Your task to perform on an android device: change text size in settings app Image 0: 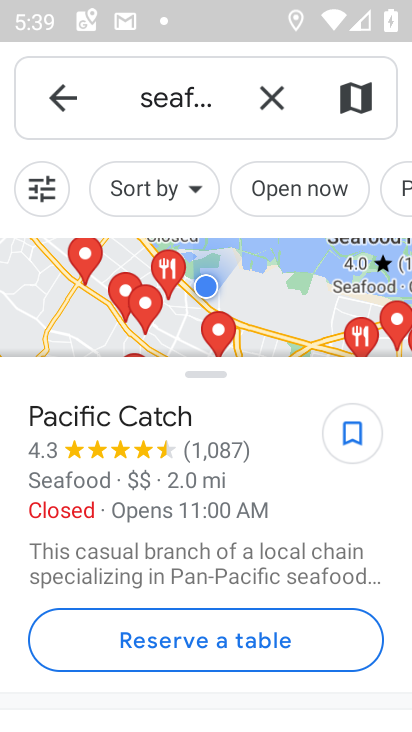
Step 0: click (54, 112)
Your task to perform on an android device: change text size in settings app Image 1: 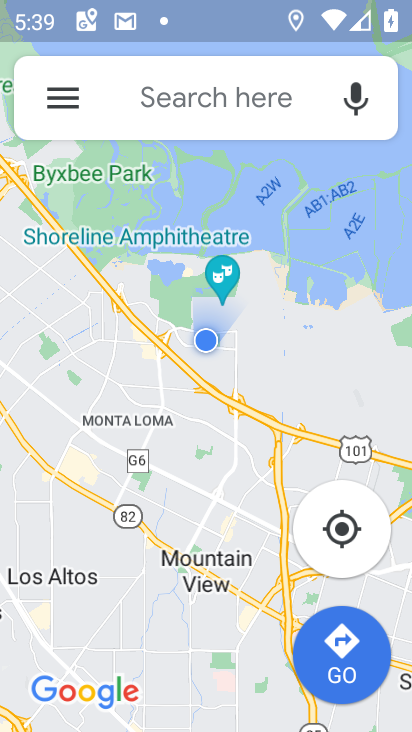
Step 1: click (136, 87)
Your task to perform on an android device: change text size in settings app Image 2: 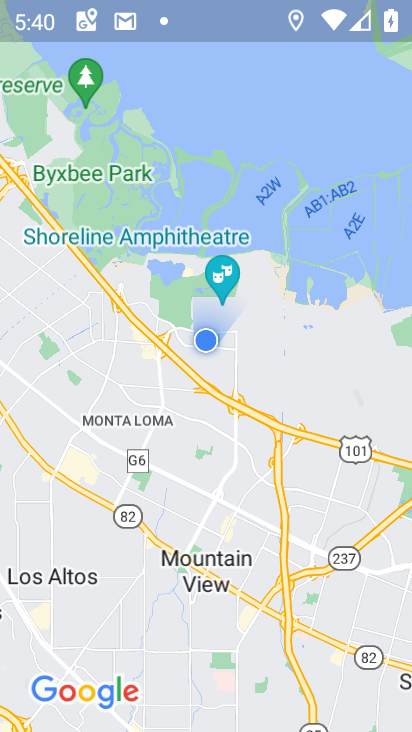
Step 2: press back button
Your task to perform on an android device: change text size in settings app Image 3: 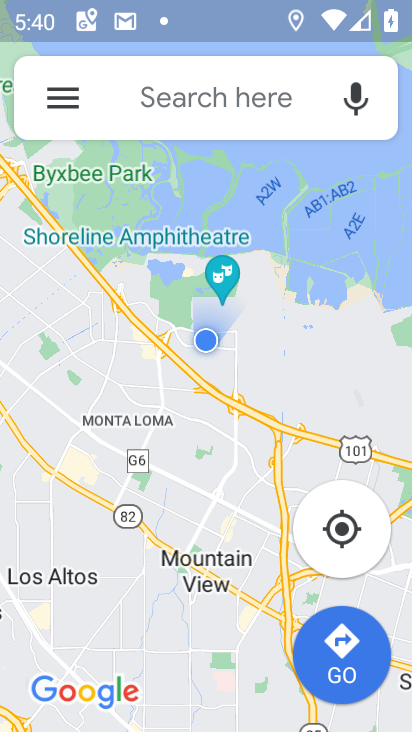
Step 3: click (186, 110)
Your task to perform on an android device: change text size in settings app Image 4: 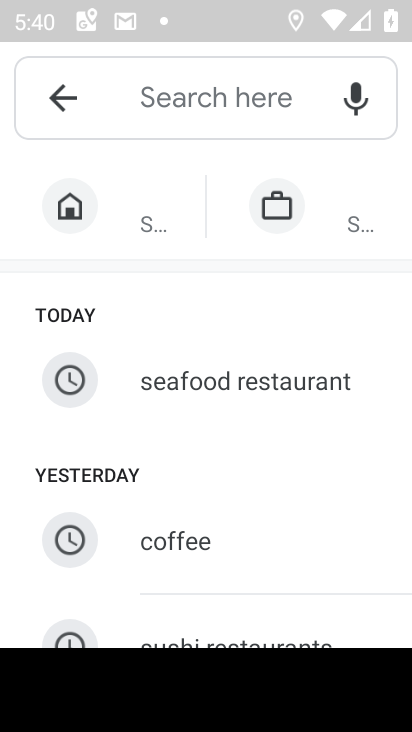
Step 4: press home button
Your task to perform on an android device: change text size in settings app Image 5: 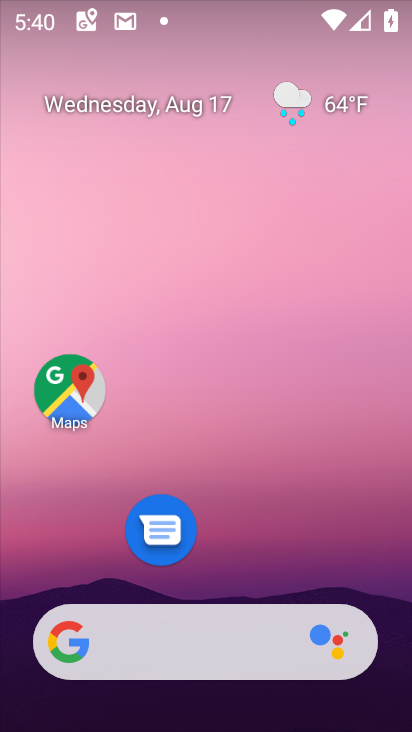
Step 5: drag from (231, 537) to (231, 90)
Your task to perform on an android device: change text size in settings app Image 6: 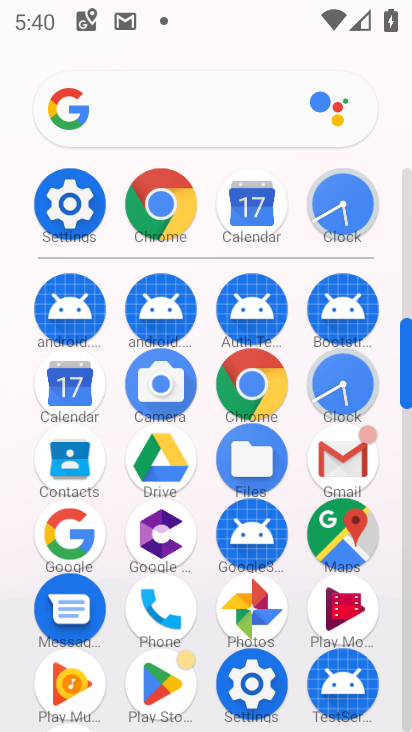
Step 6: click (64, 205)
Your task to perform on an android device: change text size in settings app Image 7: 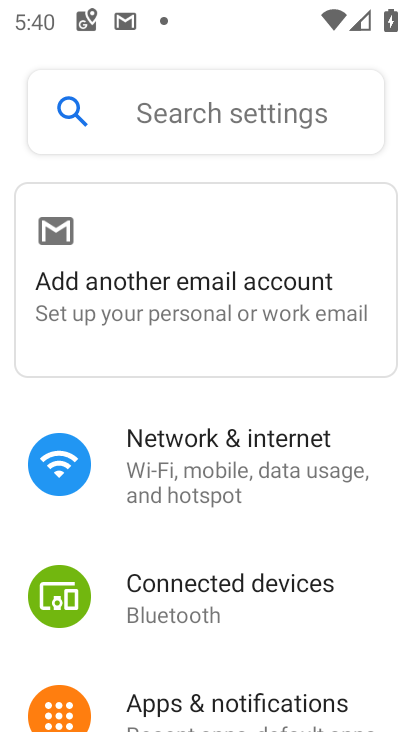
Step 7: drag from (238, 621) to (238, 368)
Your task to perform on an android device: change text size in settings app Image 8: 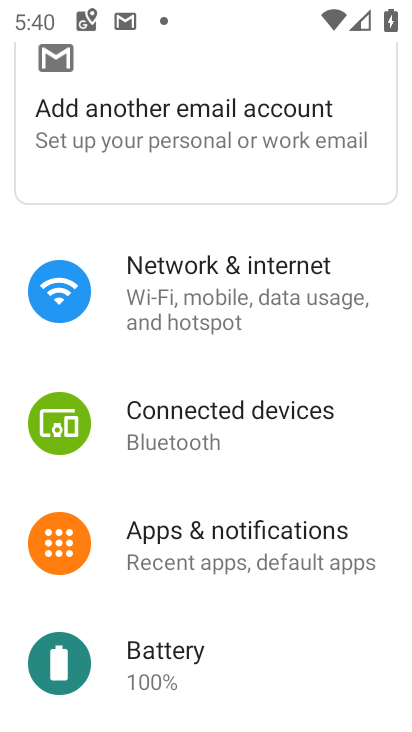
Step 8: drag from (206, 613) to (229, 375)
Your task to perform on an android device: change text size in settings app Image 9: 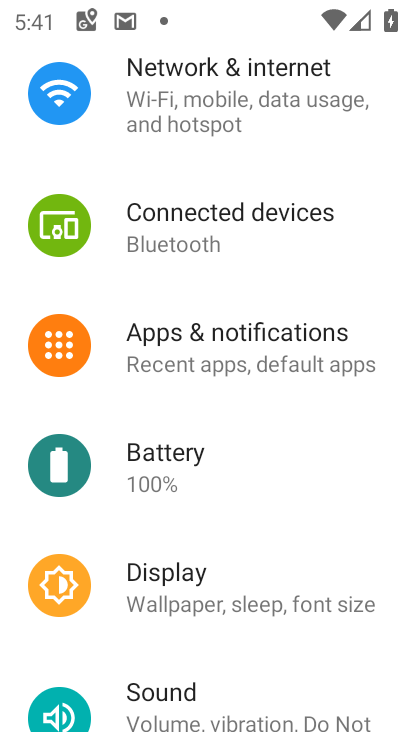
Step 9: drag from (250, 563) to (265, 248)
Your task to perform on an android device: change text size in settings app Image 10: 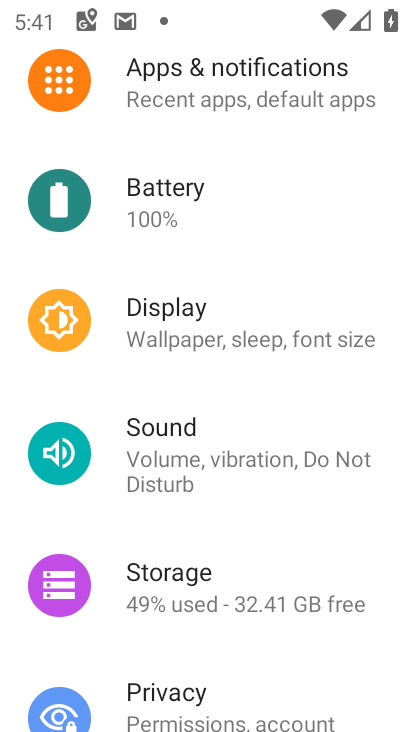
Step 10: click (176, 331)
Your task to perform on an android device: change text size in settings app Image 11: 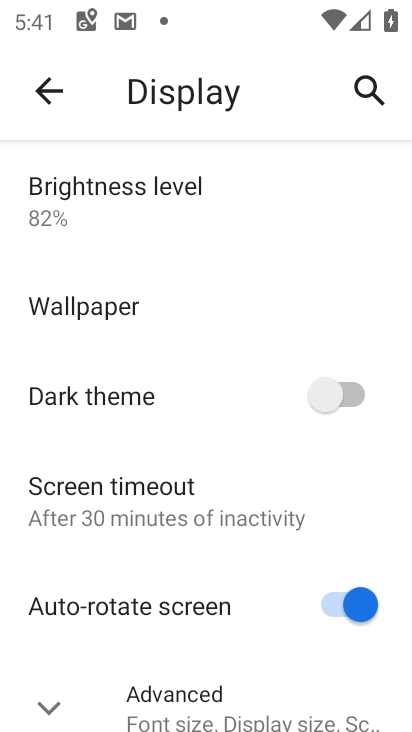
Step 11: click (193, 702)
Your task to perform on an android device: change text size in settings app Image 12: 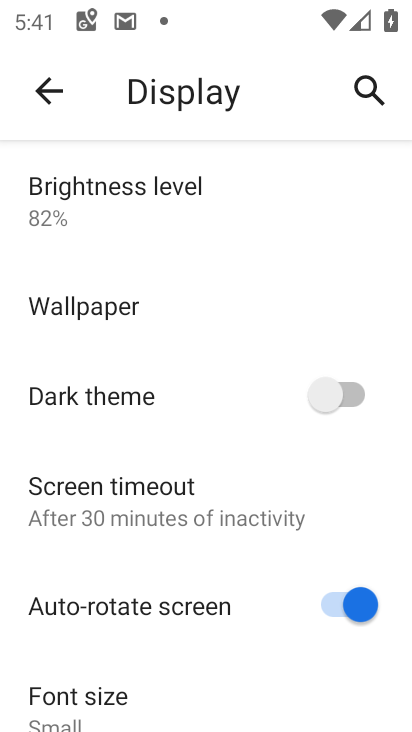
Step 12: drag from (172, 630) to (172, 410)
Your task to perform on an android device: change text size in settings app Image 13: 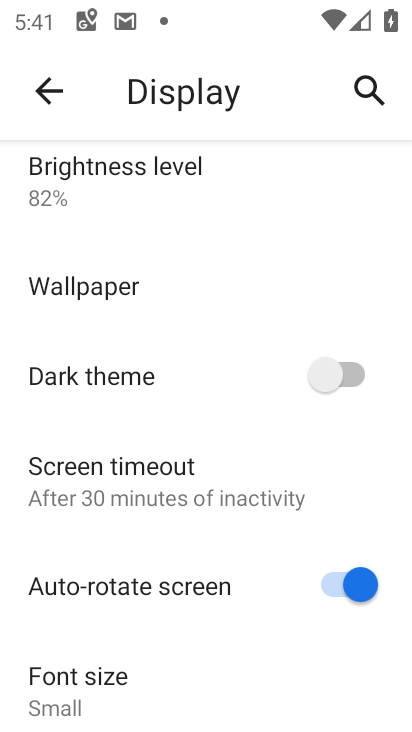
Step 13: click (80, 679)
Your task to perform on an android device: change text size in settings app Image 14: 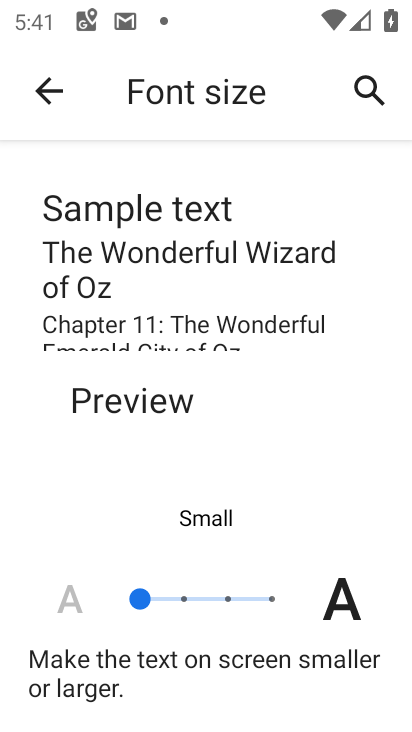
Step 14: click (185, 604)
Your task to perform on an android device: change text size in settings app Image 15: 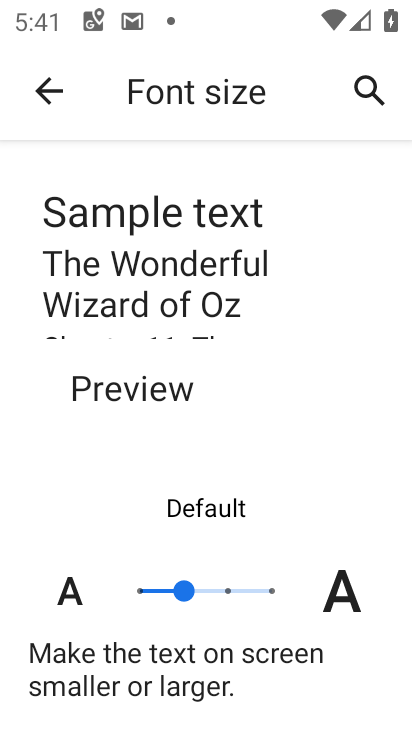
Step 15: task complete